Your task to perform on an android device: make emails show in primary in the gmail app Image 0: 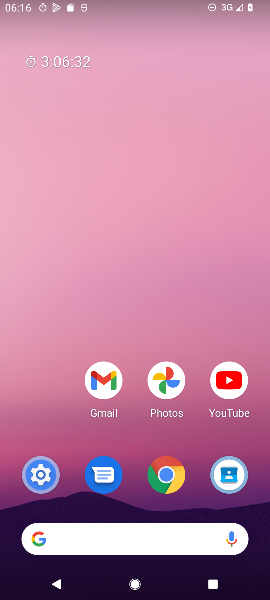
Step 0: press home button
Your task to perform on an android device: make emails show in primary in the gmail app Image 1: 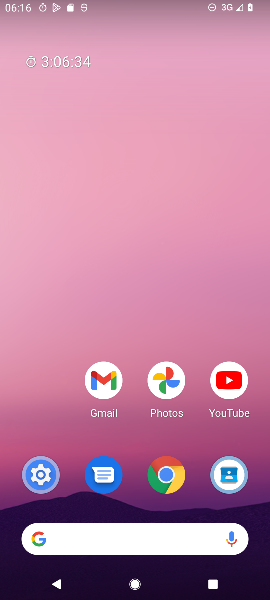
Step 1: drag from (62, 439) to (60, 188)
Your task to perform on an android device: make emails show in primary in the gmail app Image 2: 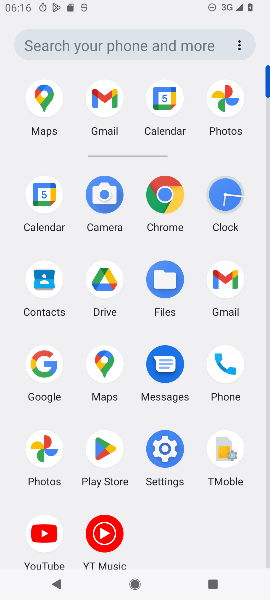
Step 2: click (235, 282)
Your task to perform on an android device: make emails show in primary in the gmail app Image 3: 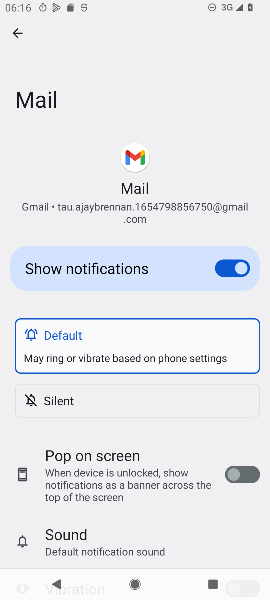
Step 3: press back button
Your task to perform on an android device: make emails show in primary in the gmail app Image 4: 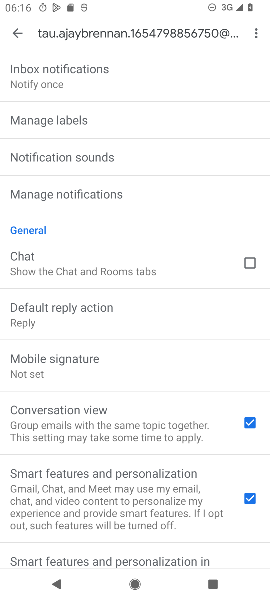
Step 4: drag from (173, 184) to (190, 249)
Your task to perform on an android device: make emails show in primary in the gmail app Image 5: 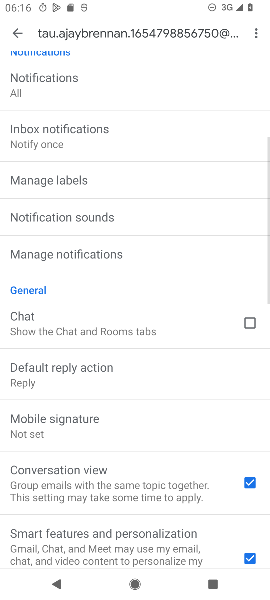
Step 5: drag from (189, 136) to (205, 229)
Your task to perform on an android device: make emails show in primary in the gmail app Image 6: 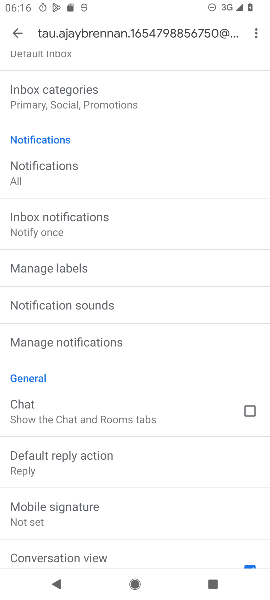
Step 6: drag from (202, 133) to (213, 227)
Your task to perform on an android device: make emails show in primary in the gmail app Image 7: 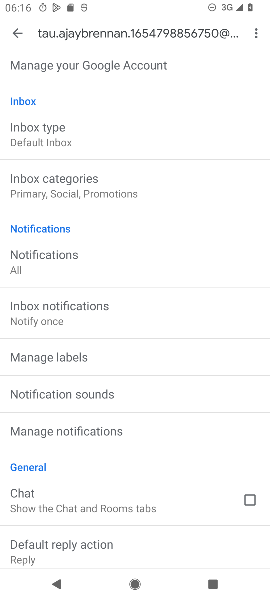
Step 7: drag from (194, 110) to (202, 185)
Your task to perform on an android device: make emails show in primary in the gmail app Image 8: 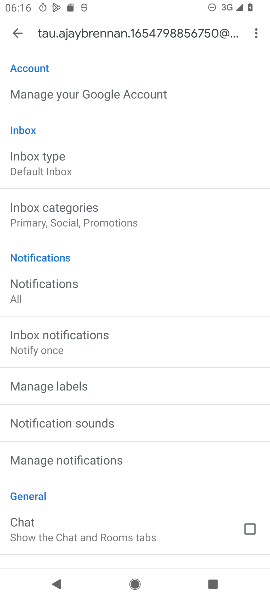
Step 8: click (110, 226)
Your task to perform on an android device: make emails show in primary in the gmail app Image 9: 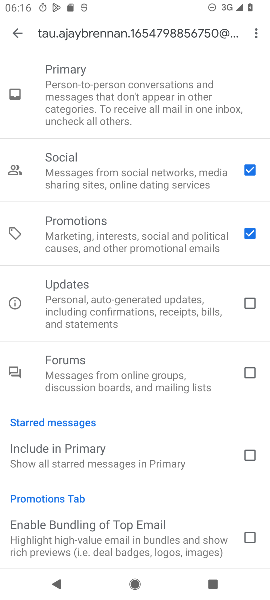
Step 9: click (255, 232)
Your task to perform on an android device: make emails show in primary in the gmail app Image 10: 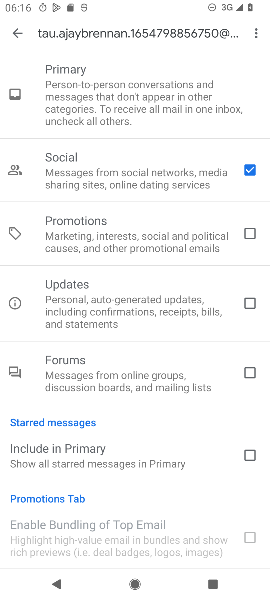
Step 10: click (252, 171)
Your task to perform on an android device: make emails show in primary in the gmail app Image 11: 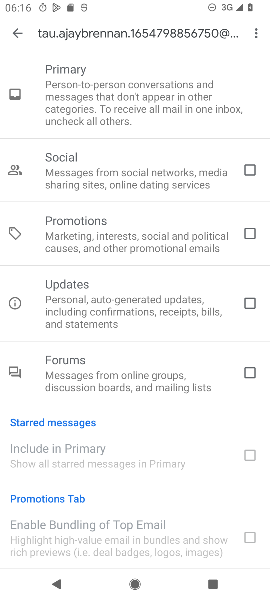
Step 11: task complete